Your task to perform on an android device: turn on location history Image 0: 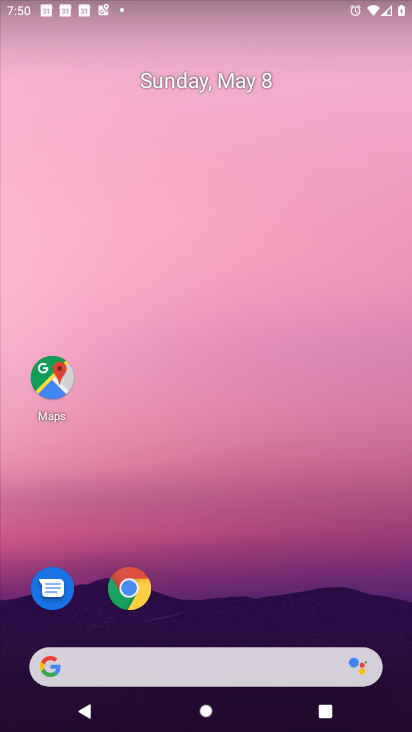
Step 0: drag from (198, 668) to (279, 32)
Your task to perform on an android device: turn on location history Image 1: 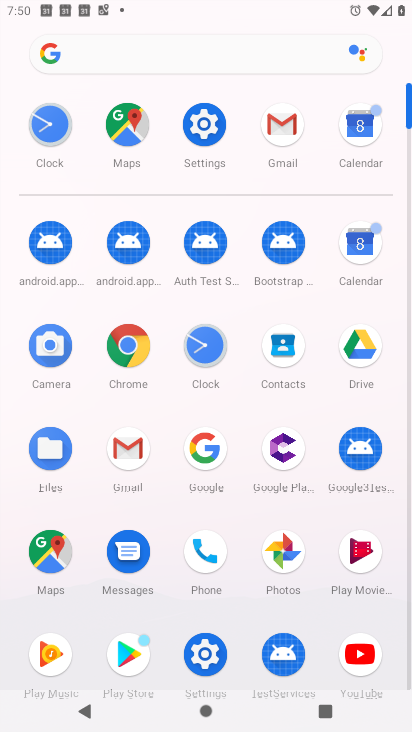
Step 1: click (124, 137)
Your task to perform on an android device: turn on location history Image 2: 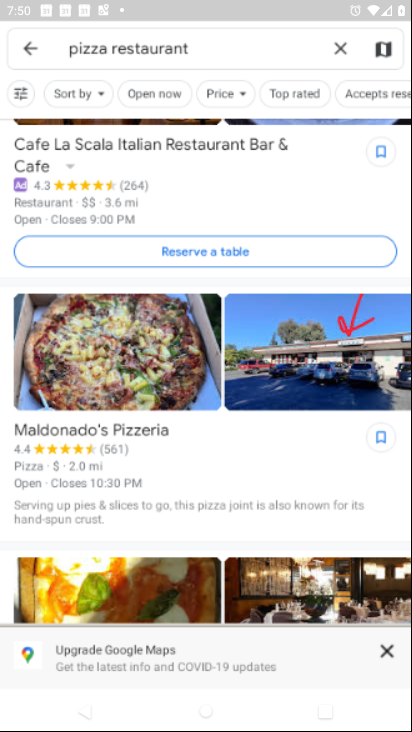
Step 2: click (31, 46)
Your task to perform on an android device: turn on location history Image 3: 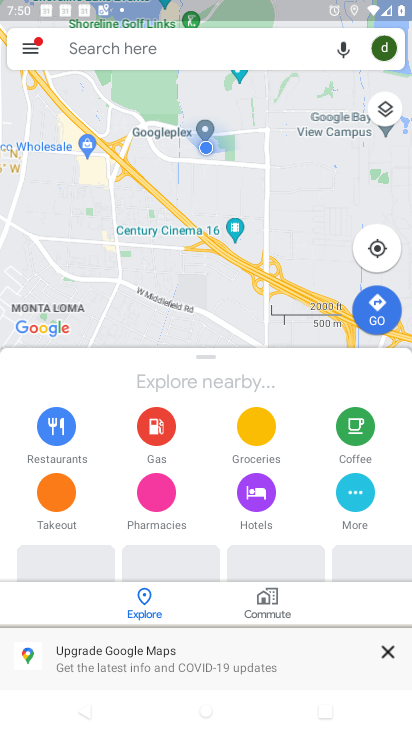
Step 3: click (31, 46)
Your task to perform on an android device: turn on location history Image 4: 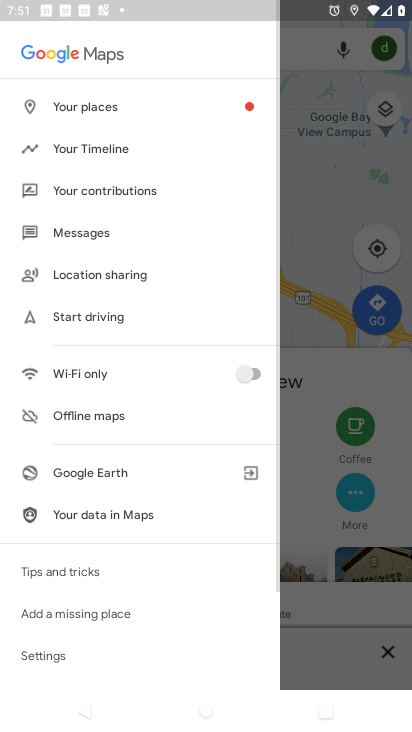
Step 4: click (90, 148)
Your task to perform on an android device: turn on location history Image 5: 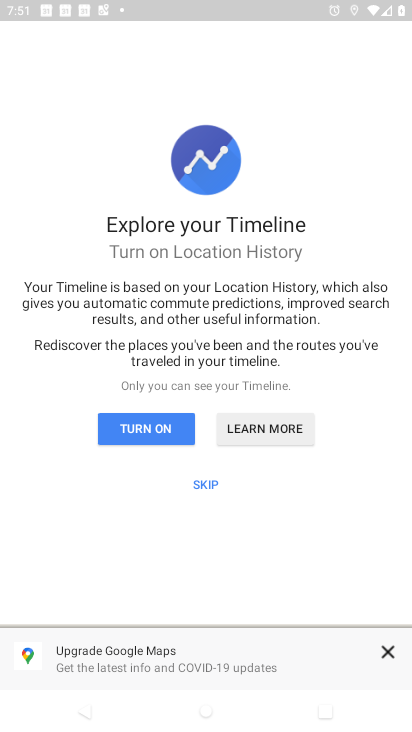
Step 5: click (211, 483)
Your task to perform on an android device: turn on location history Image 6: 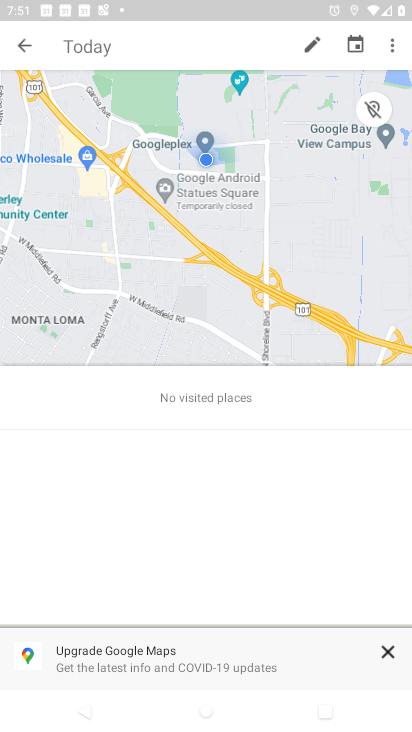
Step 6: click (389, 43)
Your task to perform on an android device: turn on location history Image 7: 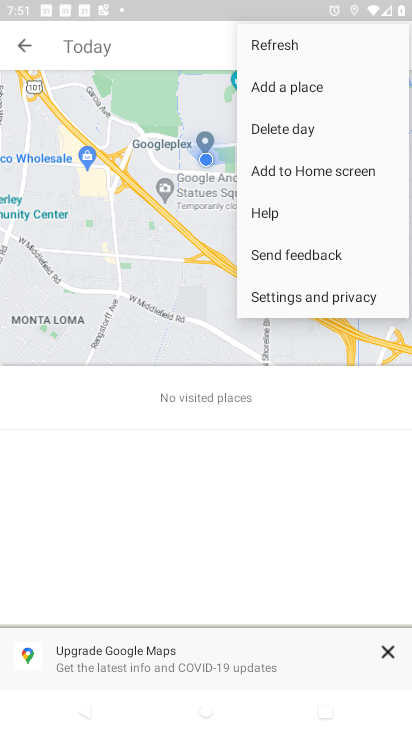
Step 7: click (273, 302)
Your task to perform on an android device: turn on location history Image 8: 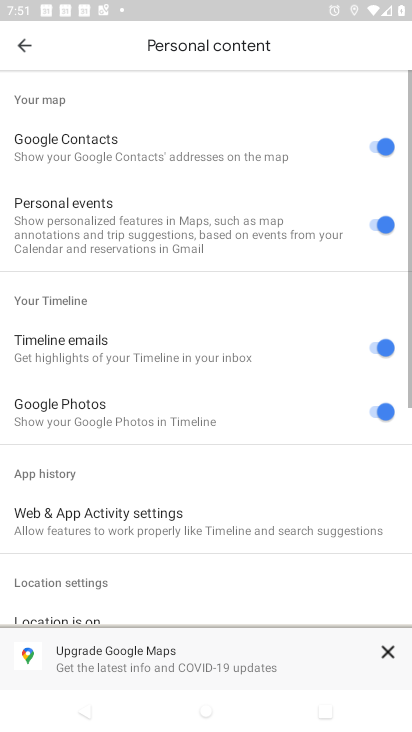
Step 8: drag from (143, 556) to (223, 184)
Your task to perform on an android device: turn on location history Image 9: 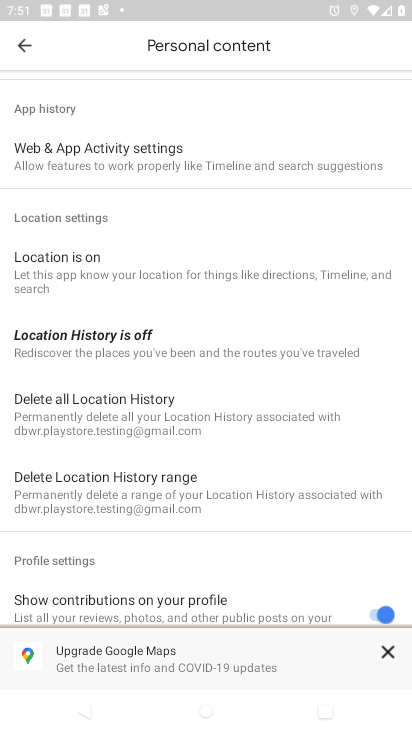
Step 9: click (27, 48)
Your task to perform on an android device: turn on location history Image 10: 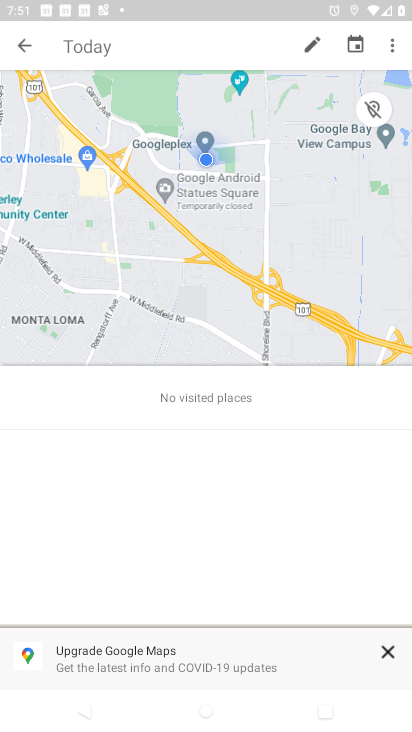
Step 10: click (393, 46)
Your task to perform on an android device: turn on location history Image 11: 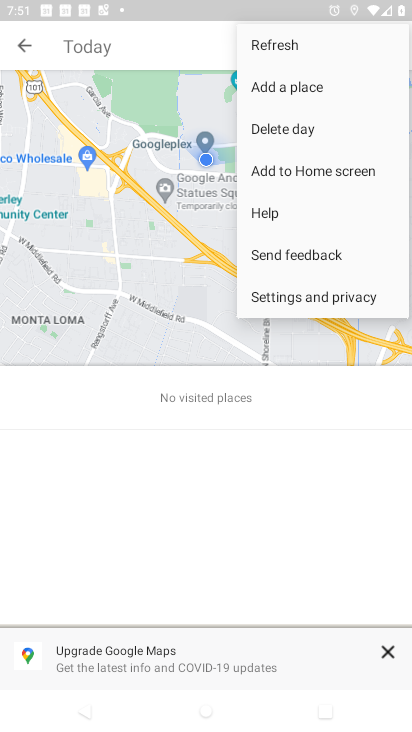
Step 11: click (284, 299)
Your task to perform on an android device: turn on location history Image 12: 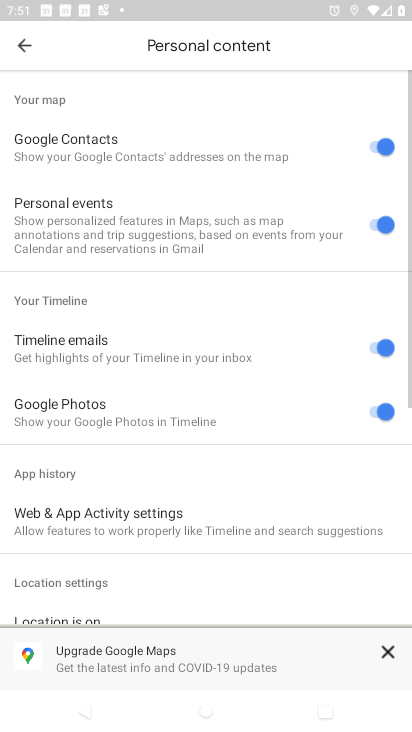
Step 12: drag from (164, 537) to (263, 146)
Your task to perform on an android device: turn on location history Image 13: 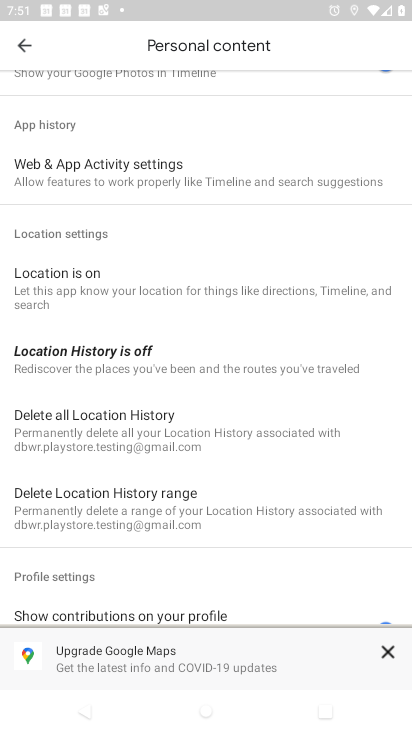
Step 13: click (128, 358)
Your task to perform on an android device: turn on location history Image 14: 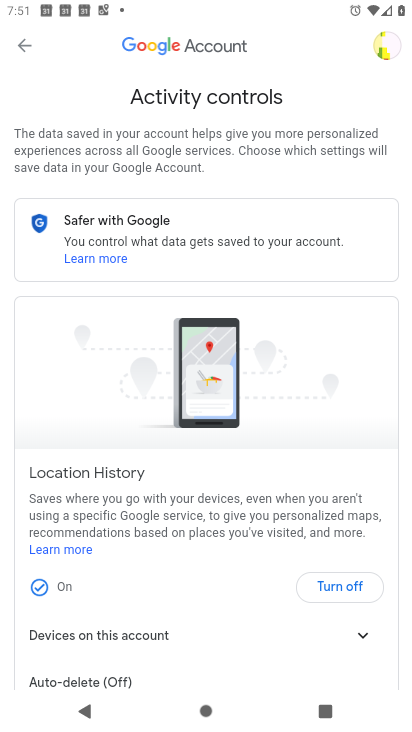
Step 14: task complete